Your task to perform on an android device: Open the calendar app, open the side menu, and click the "Day" option Image 0: 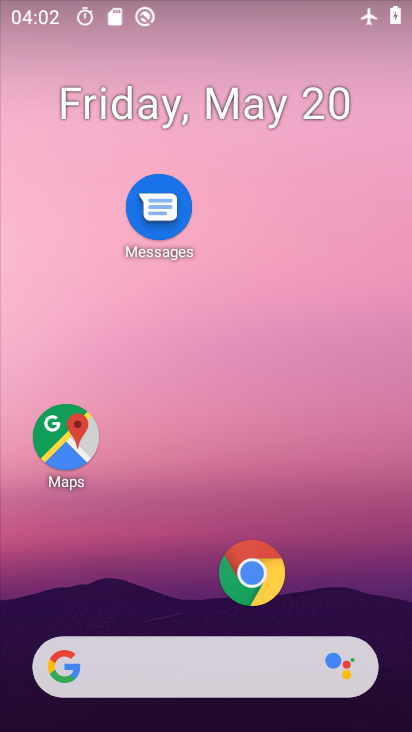
Step 0: drag from (188, 608) to (208, 130)
Your task to perform on an android device: Open the calendar app, open the side menu, and click the "Day" option Image 1: 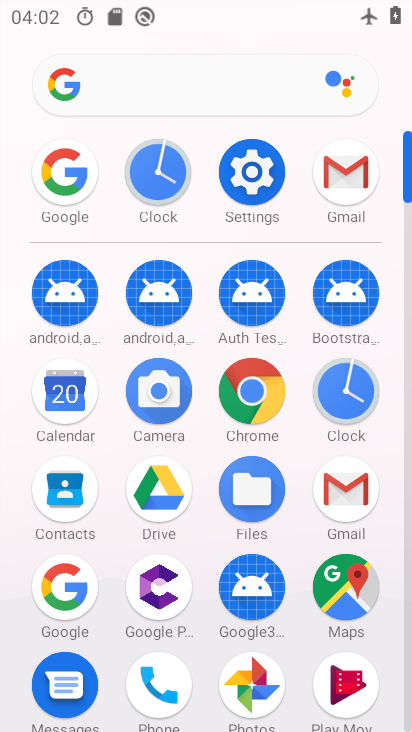
Step 1: click (80, 394)
Your task to perform on an android device: Open the calendar app, open the side menu, and click the "Day" option Image 2: 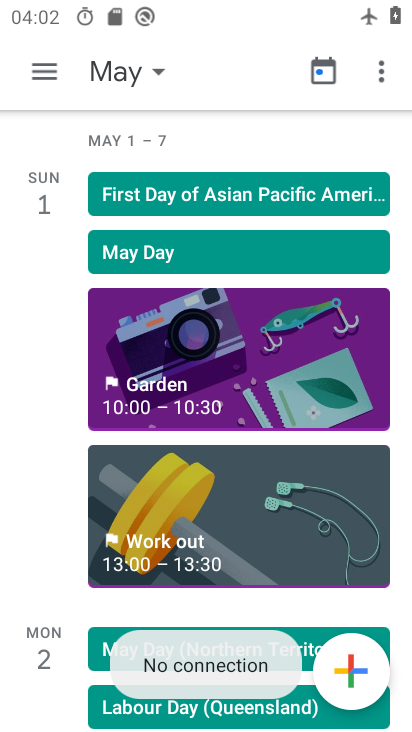
Step 2: click (35, 59)
Your task to perform on an android device: Open the calendar app, open the side menu, and click the "Day" option Image 3: 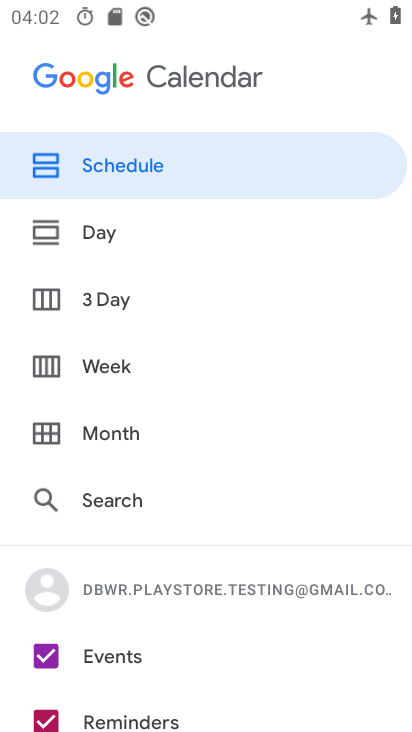
Step 3: click (157, 239)
Your task to perform on an android device: Open the calendar app, open the side menu, and click the "Day" option Image 4: 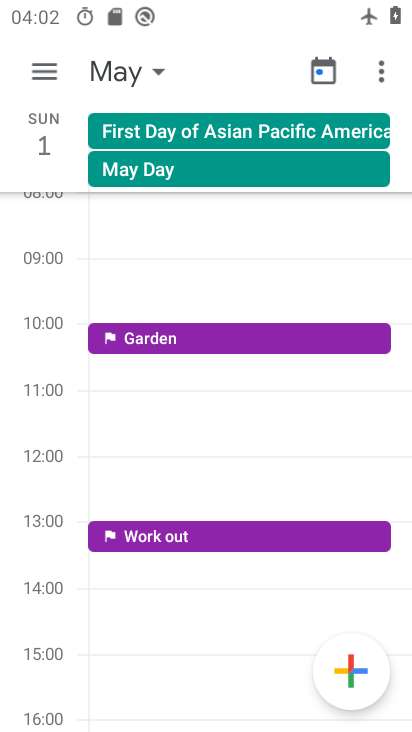
Step 4: task complete